Your task to perform on an android device: What is the news today? Image 0: 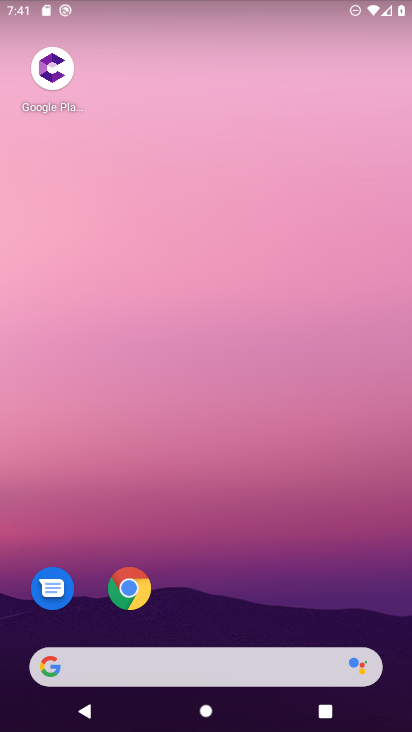
Step 0: drag from (18, 359) to (410, 334)
Your task to perform on an android device: What is the news today? Image 1: 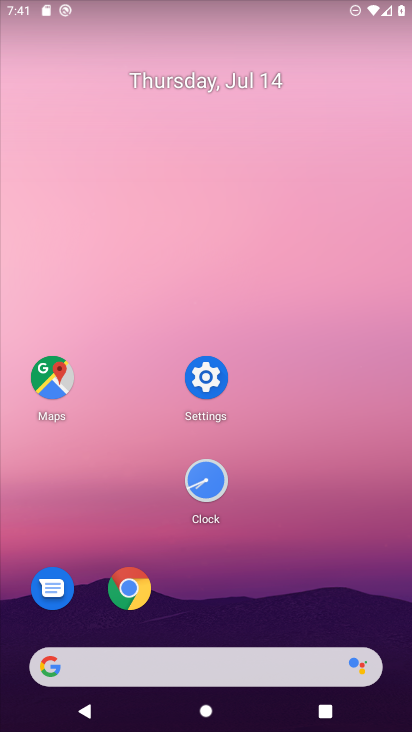
Step 1: task complete